Your task to perform on an android device: Open Google Maps and go to "Timeline" Image 0: 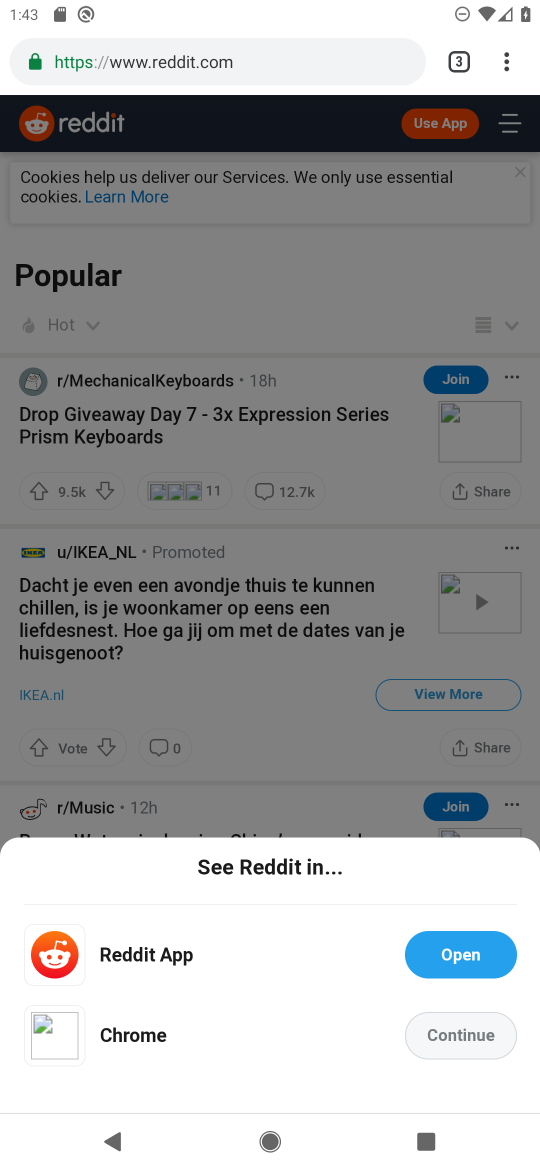
Step 0: press home button
Your task to perform on an android device: Open Google Maps and go to "Timeline" Image 1: 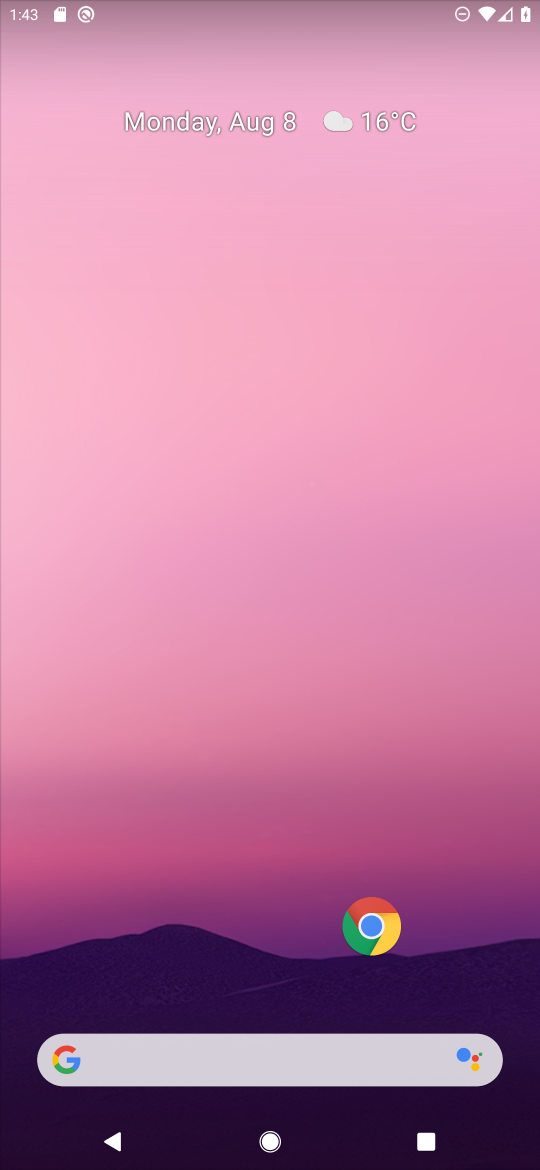
Step 1: drag from (287, 1000) to (312, 127)
Your task to perform on an android device: Open Google Maps and go to "Timeline" Image 2: 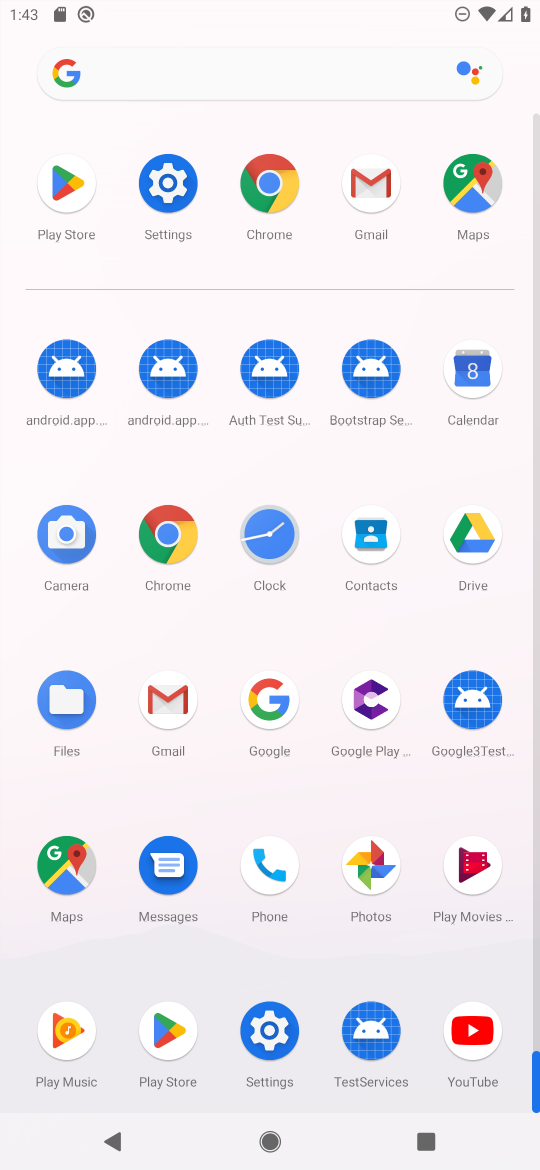
Step 2: click (81, 857)
Your task to perform on an android device: Open Google Maps and go to "Timeline" Image 3: 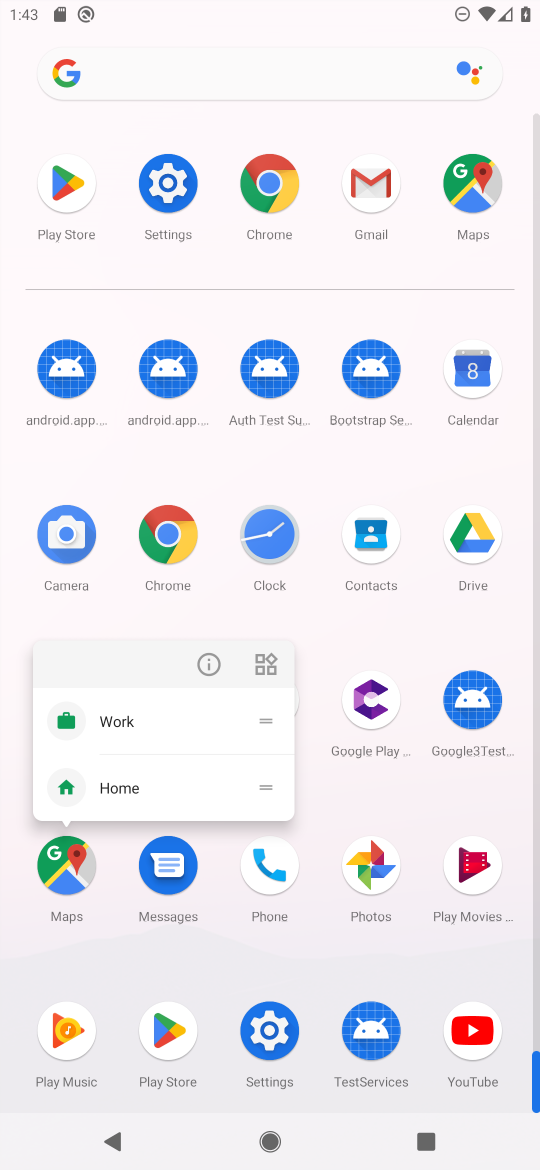
Step 3: click (70, 873)
Your task to perform on an android device: Open Google Maps and go to "Timeline" Image 4: 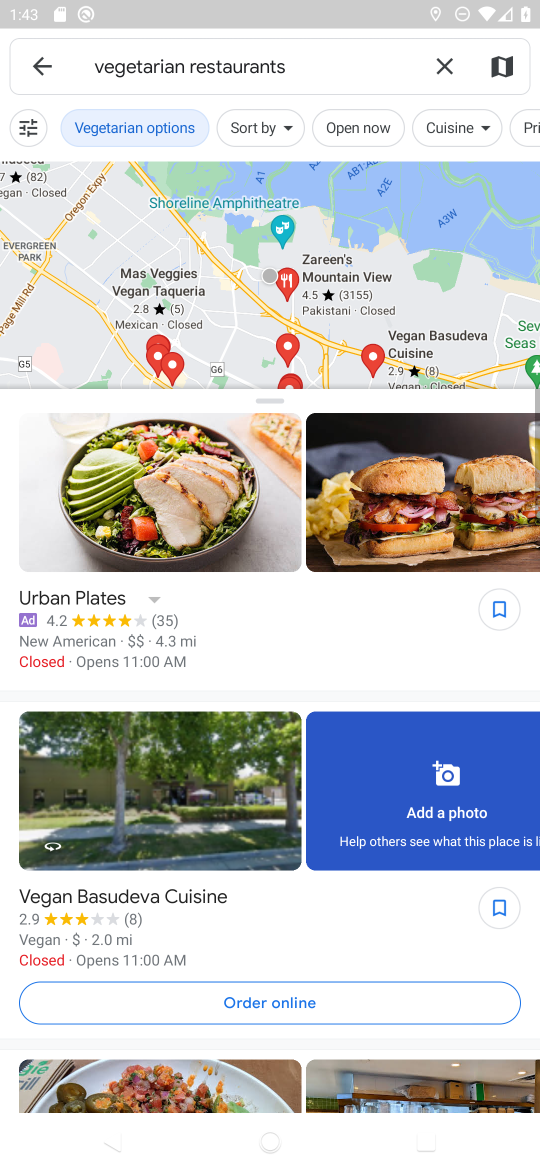
Step 4: click (439, 64)
Your task to perform on an android device: Open Google Maps and go to "Timeline" Image 5: 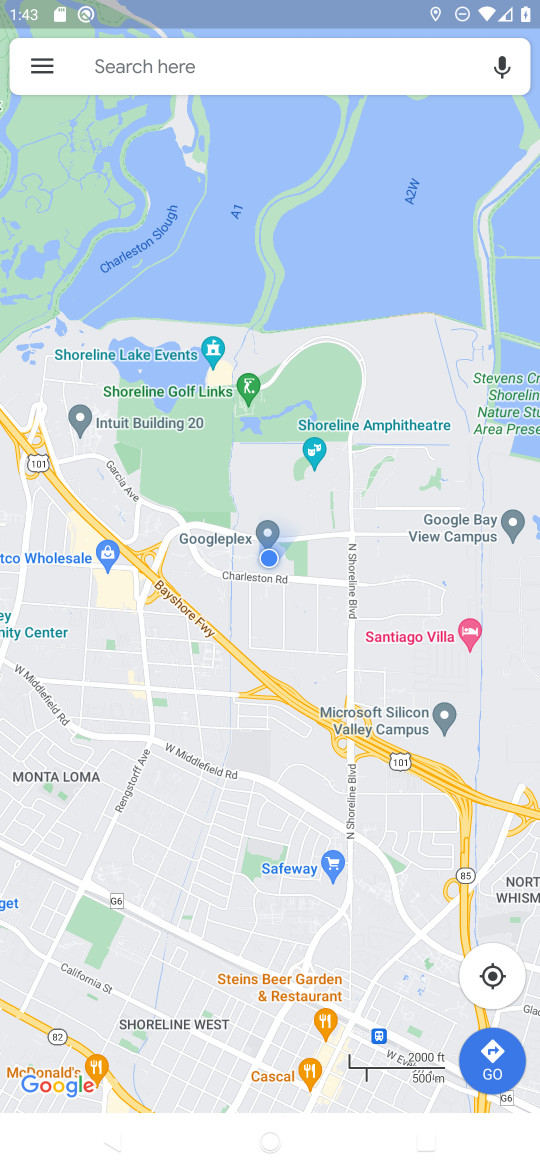
Step 5: click (47, 75)
Your task to perform on an android device: Open Google Maps and go to "Timeline" Image 6: 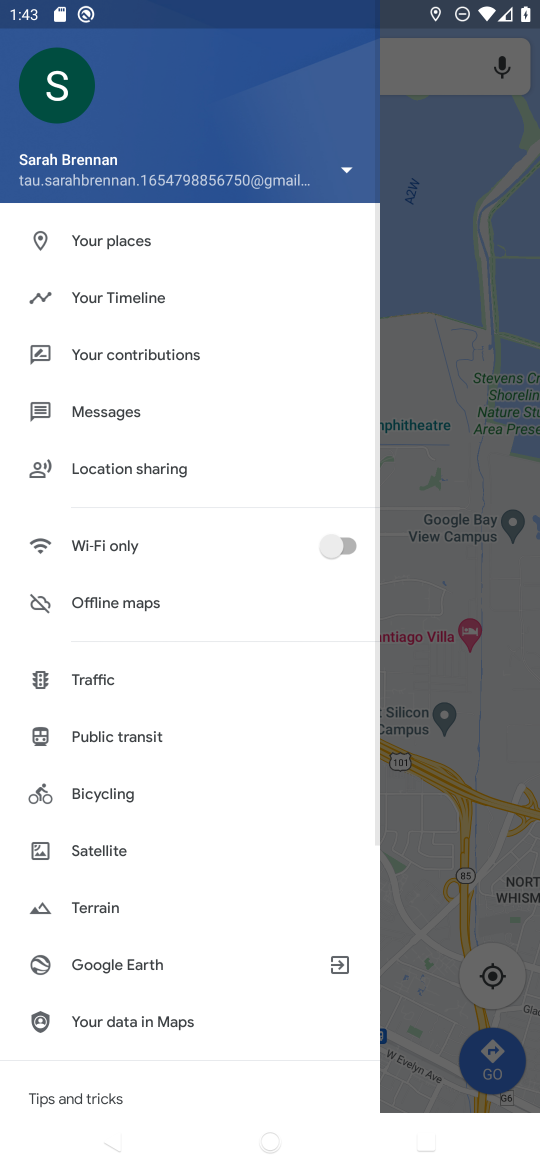
Step 6: click (154, 305)
Your task to perform on an android device: Open Google Maps and go to "Timeline" Image 7: 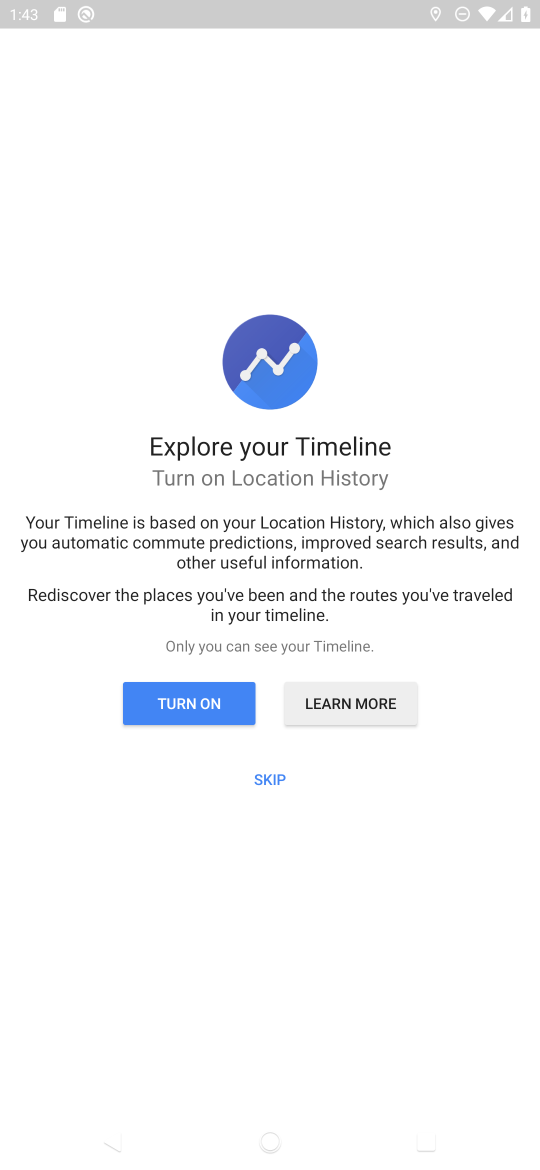
Step 7: click (281, 765)
Your task to perform on an android device: Open Google Maps and go to "Timeline" Image 8: 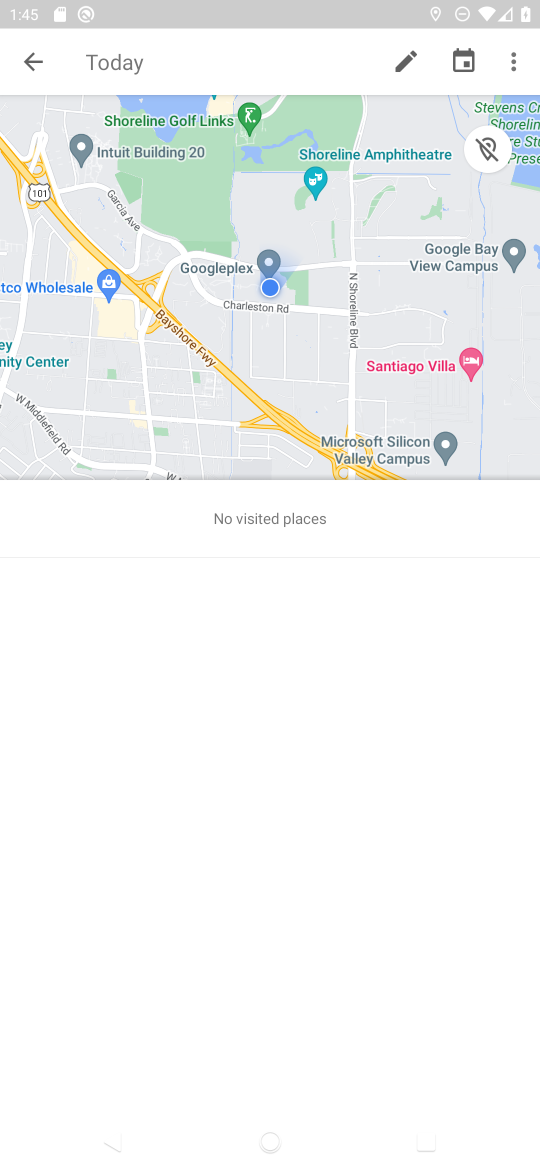
Step 8: task complete